Your task to perform on an android device: turn off smart reply in the gmail app Image 0: 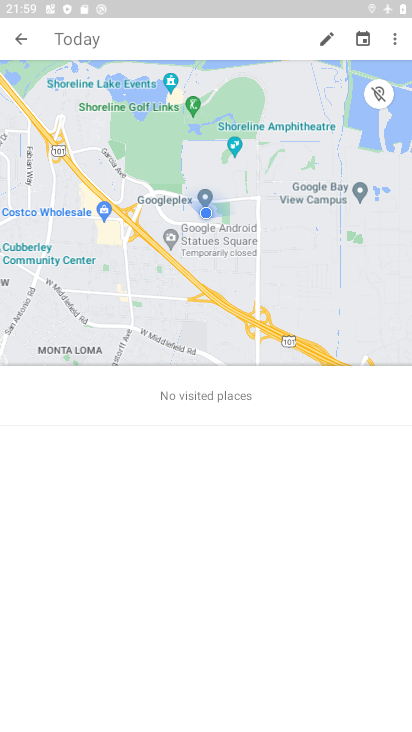
Step 0: press back button
Your task to perform on an android device: turn off smart reply in the gmail app Image 1: 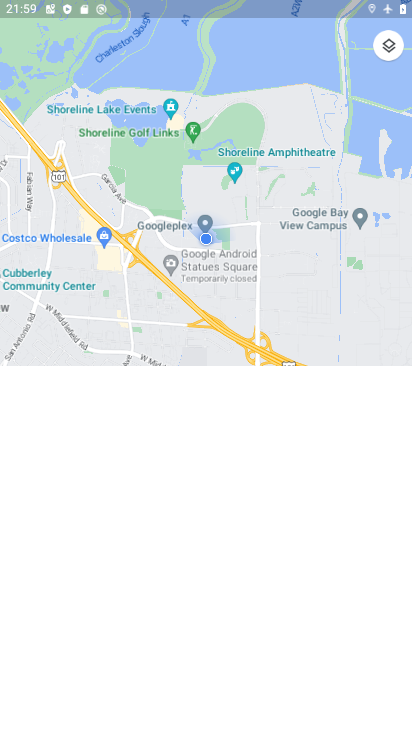
Step 1: press back button
Your task to perform on an android device: turn off smart reply in the gmail app Image 2: 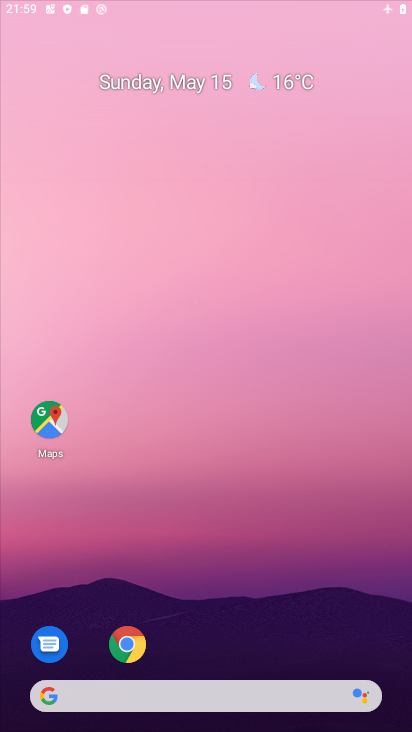
Step 2: press back button
Your task to perform on an android device: turn off smart reply in the gmail app Image 3: 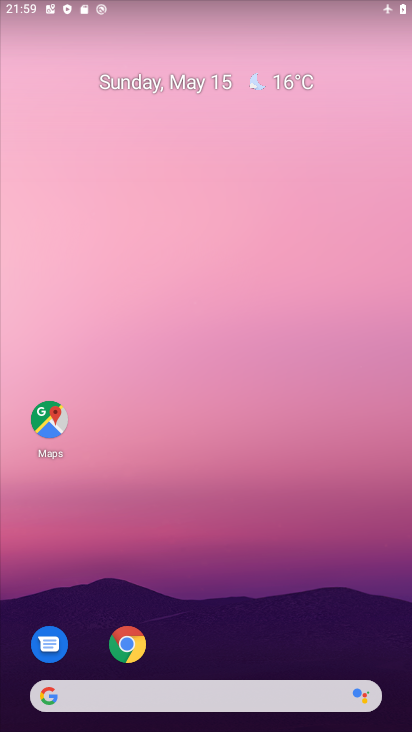
Step 3: drag from (213, 602) to (302, 95)
Your task to perform on an android device: turn off smart reply in the gmail app Image 4: 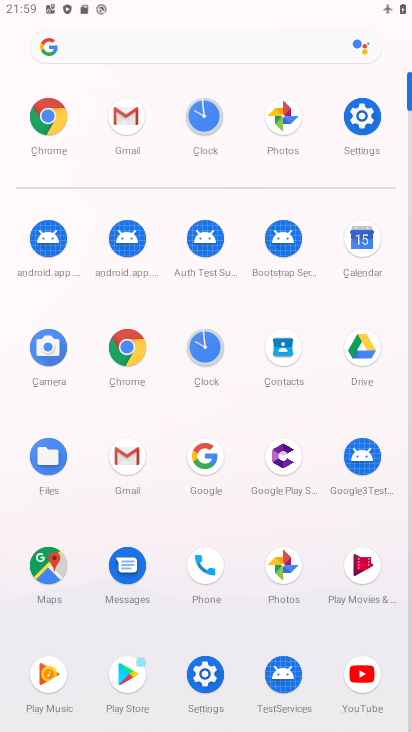
Step 4: click (135, 458)
Your task to perform on an android device: turn off smart reply in the gmail app Image 5: 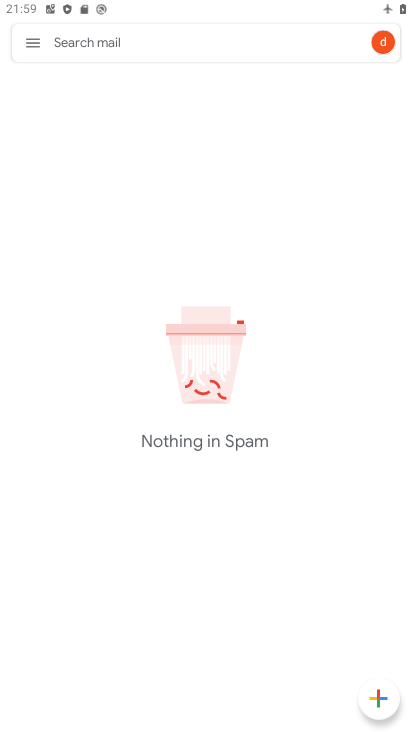
Step 5: click (33, 55)
Your task to perform on an android device: turn off smart reply in the gmail app Image 6: 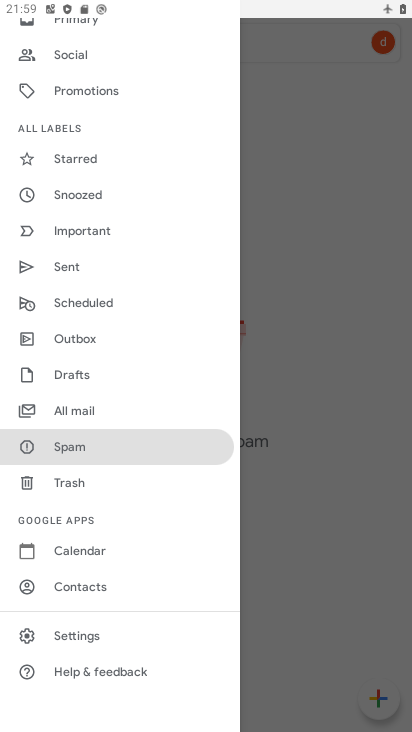
Step 6: click (85, 634)
Your task to perform on an android device: turn off smart reply in the gmail app Image 7: 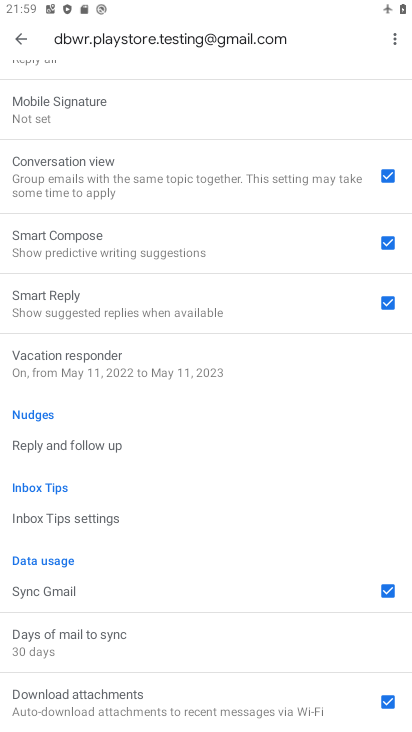
Step 7: click (383, 299)
Your task to perform on an android device: turn off smart reply in the gmail app Image 8: 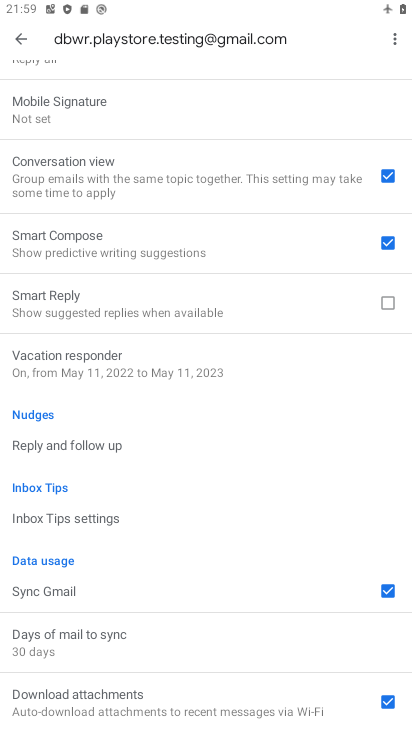
Step 8: task complete